Your task to perform on an android device: open a bookmark in the chrome app Image 0: 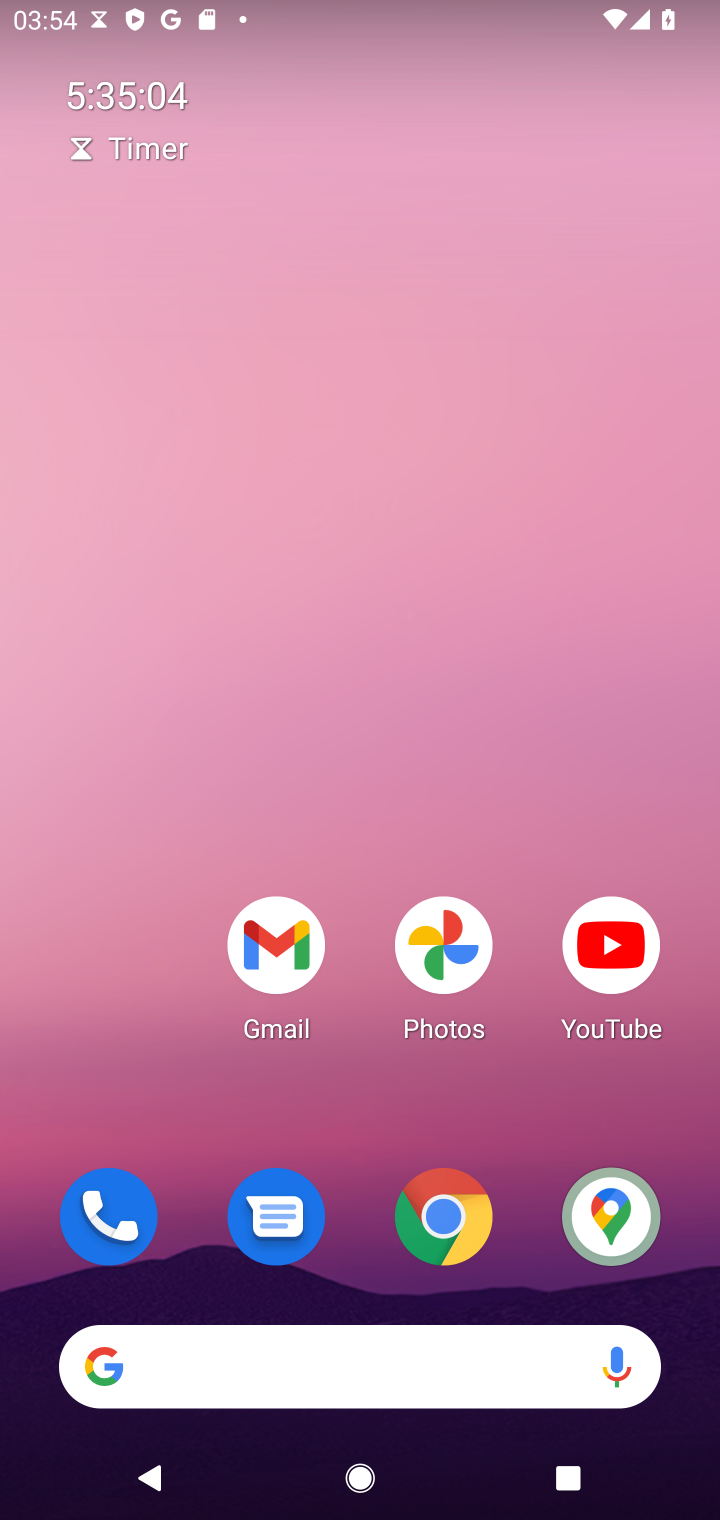
Step 0: click (447, 1216)
Your task to perform on an android device: open a bookmark in the chrome app Image 1: 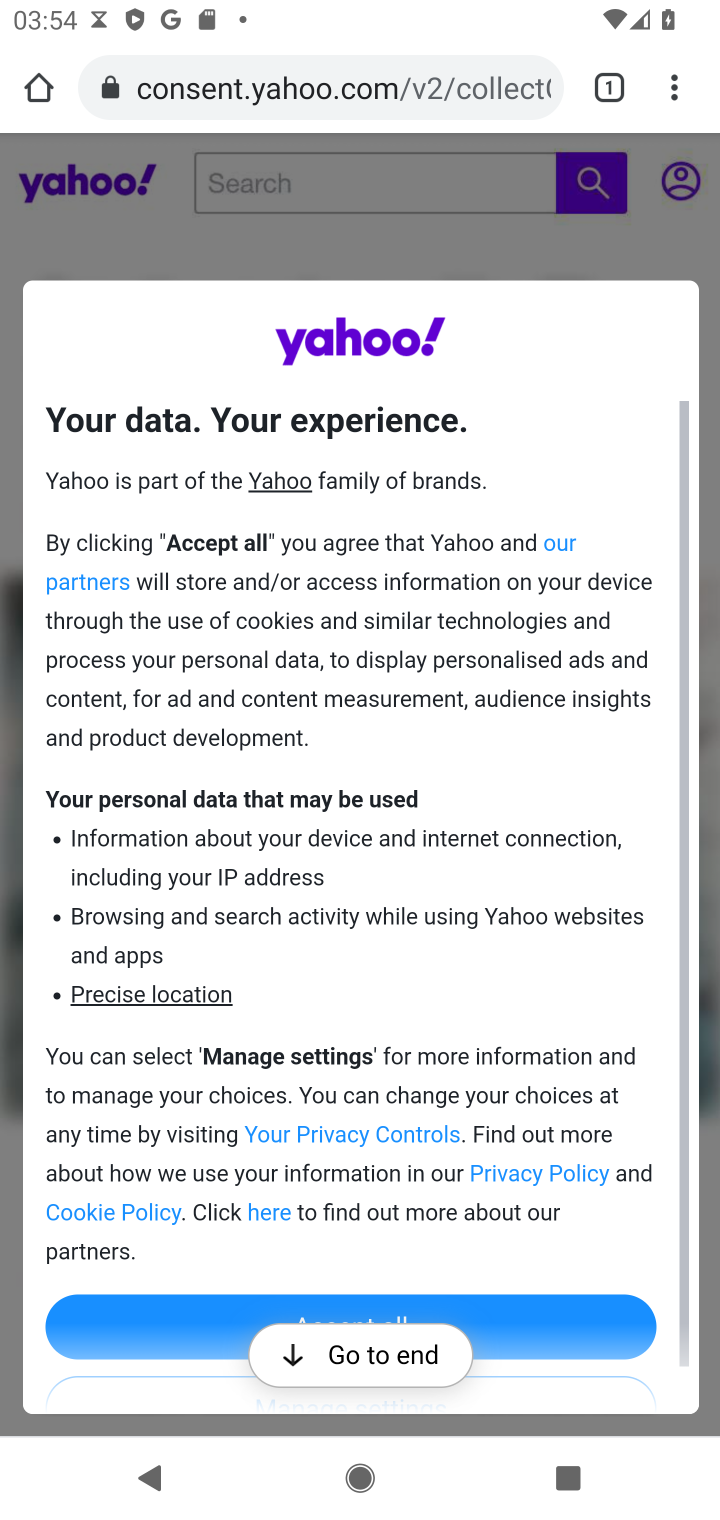
Step 1: click (672, 83)
Your task to perform on an android device: open a bookmark in the chrome app Image 2: 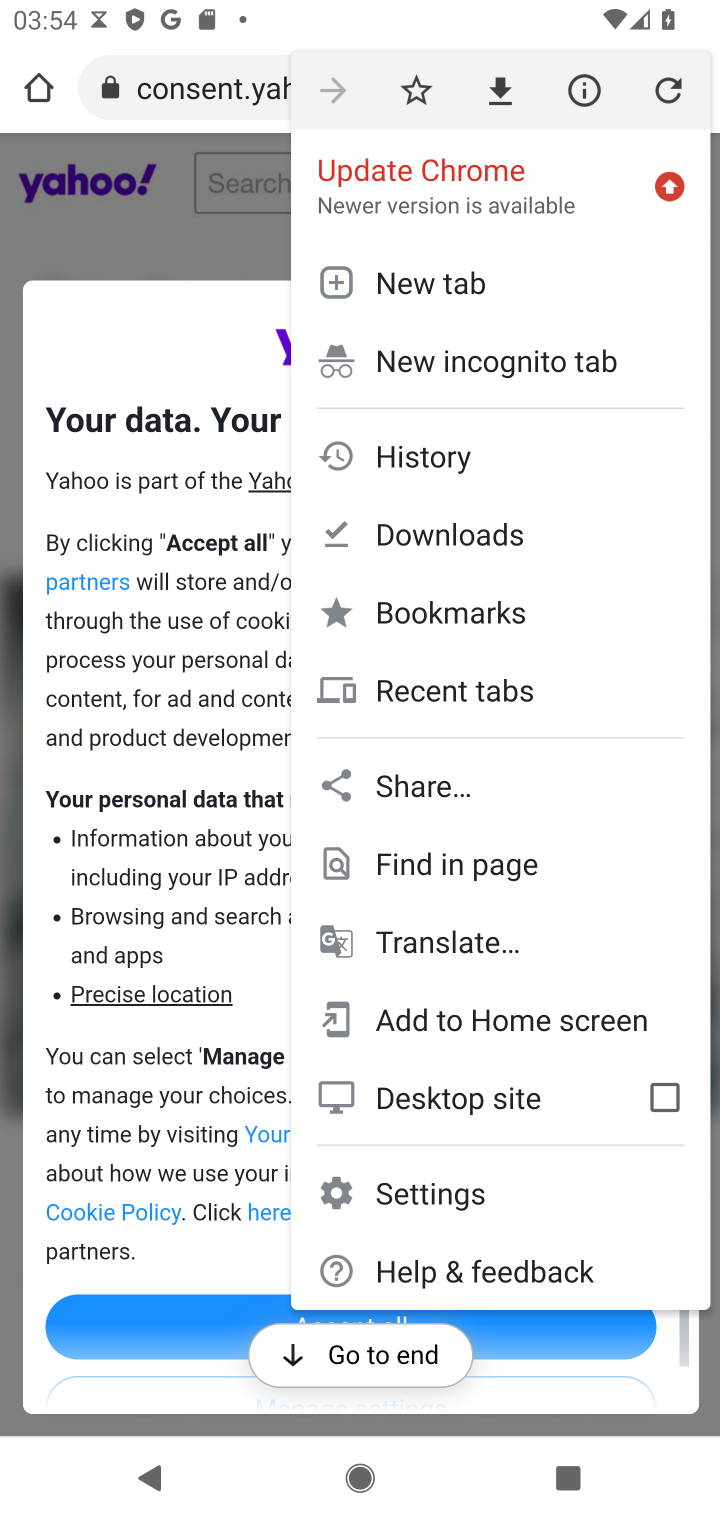
Step 2: click (419, 611)
Your task to perform on an android device: open a bookmark in the chrome app Image 3: 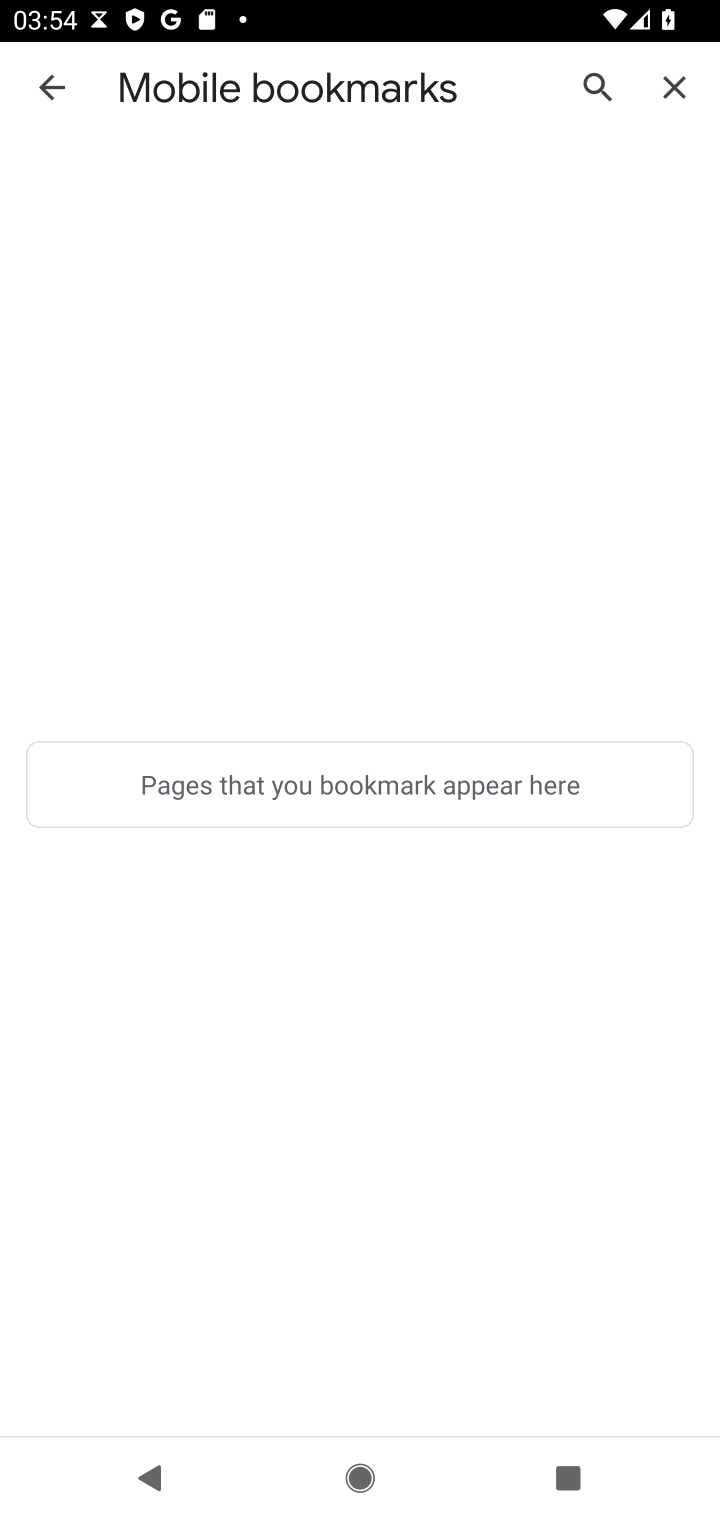
Step 3: task complete